Your task to perform on an android device: turn on notifications settings in the gmail app Image 0: 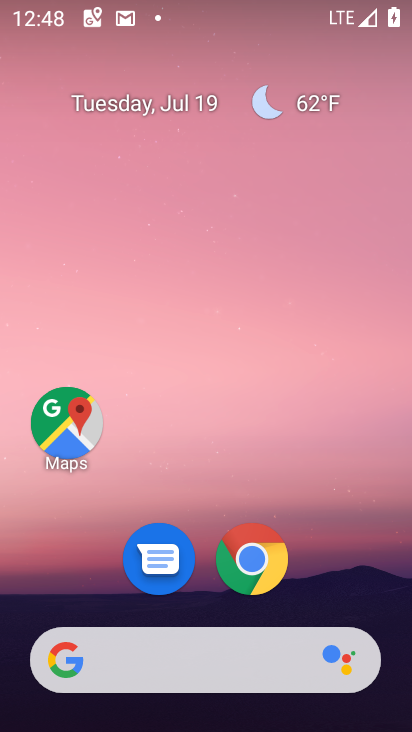
Step 0: drag from (217, 635) to (329, 33)
Your task to perform on an android device: turn on notifications settings in the gmail app Image 1: 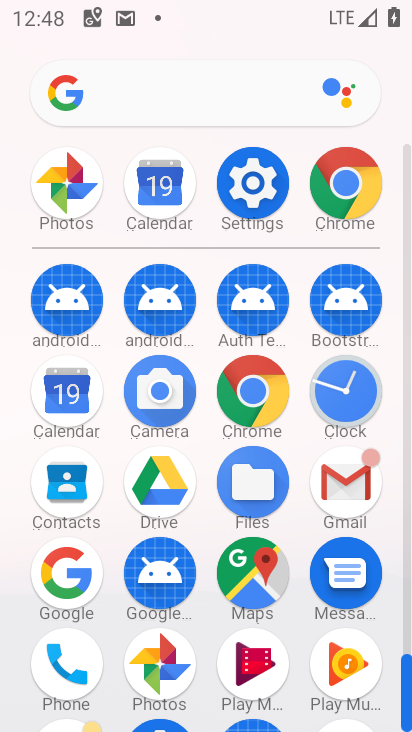
Step 1: click (356, 483)
Your task to perform on an android device: turn on notifications settings in the gmail app Image 2: 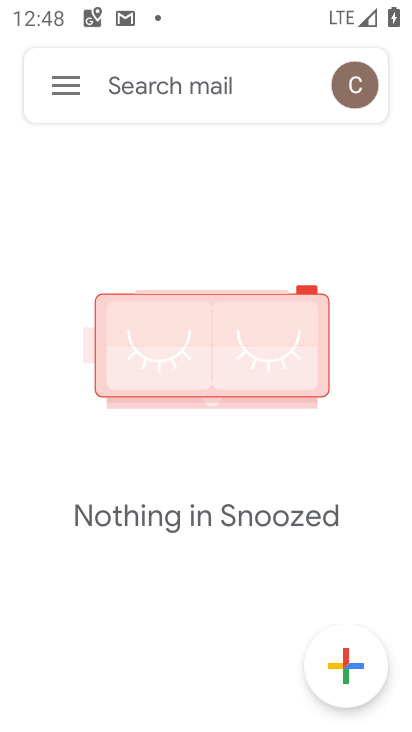
Step 2: click (61, 93)
Your task to perform on an android device: turn on notifications settings in the gmail app Image 3: 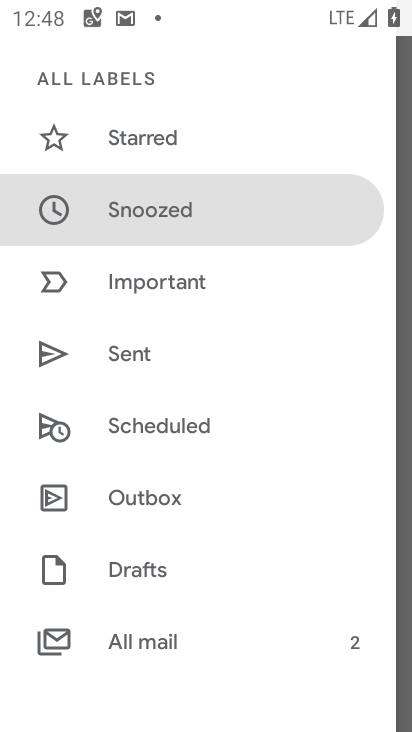
Step 3: drag from (152, 569) to (264, 67)
Your task to perform on an android device: turn on notifications settings in the gmail app Image 4: 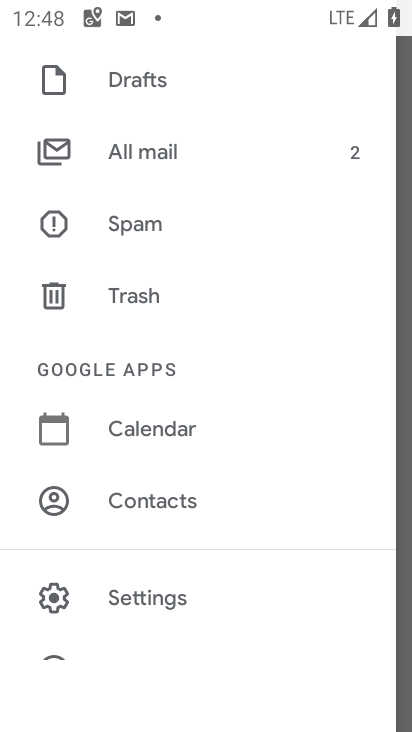
Step 4: click (155, 597)
Your task to perform on an android device: turn on notifications settings in the gmail app Image 5: 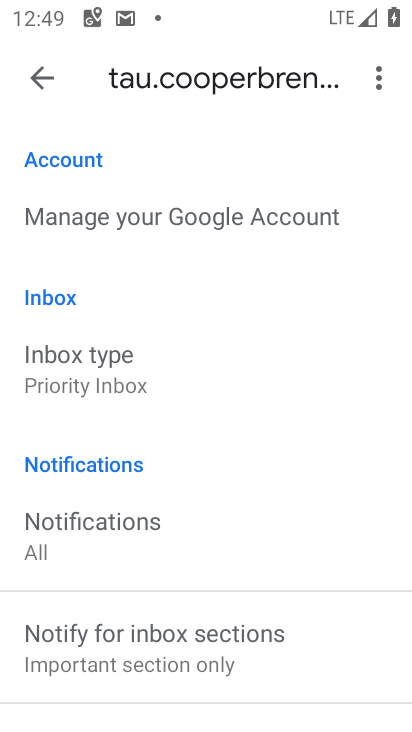
Step 5: drag from (177, 571) to (201, 341)
Your task to perform on an android device: turn on notifications settings in the gmail app Image 6: 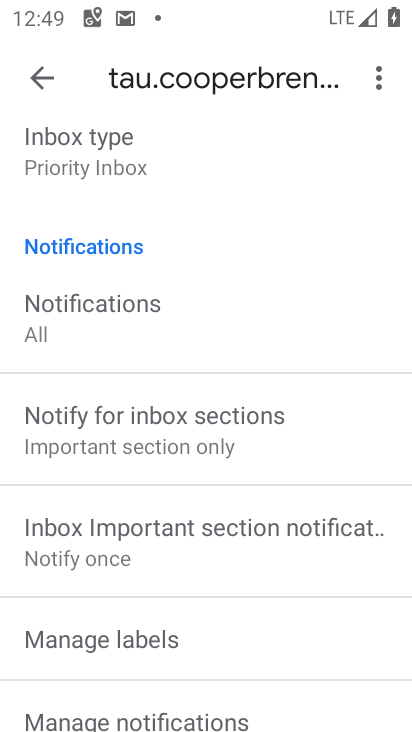
Step 6: click (39, 92)
Your task to perform on an android device: turn on notifications settings in the gmail app Image 7: 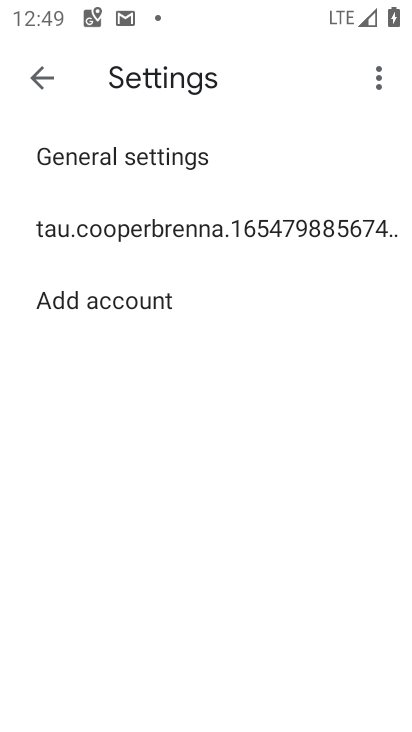
Step 7: click (136, 159)
Your task to perform on an android device: turn on notifications settings in the gmail app Image 8: 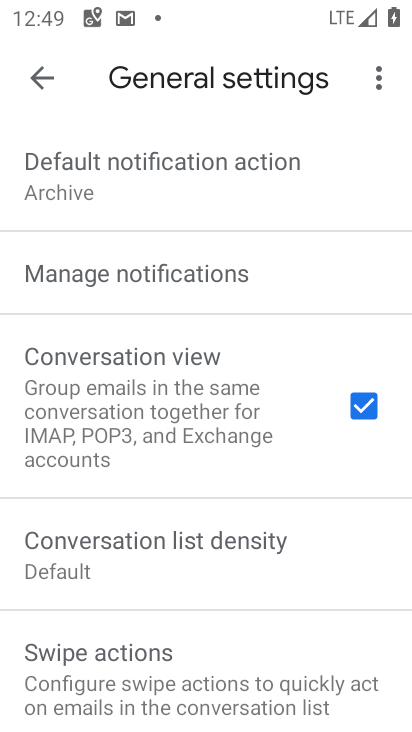
Step 8: click (139, 271)
Your task to perform on an android device: turn on notifications settings in the gmail app Image 9: 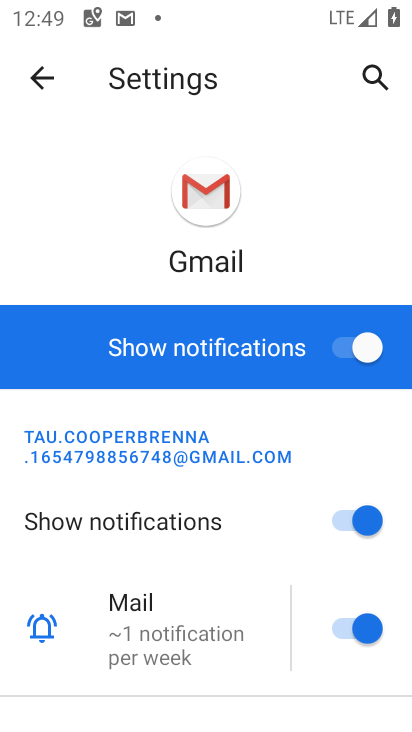
Step 9: task complete